Your task to perform on an android device: turn off javascript in the chrome app Image 0: 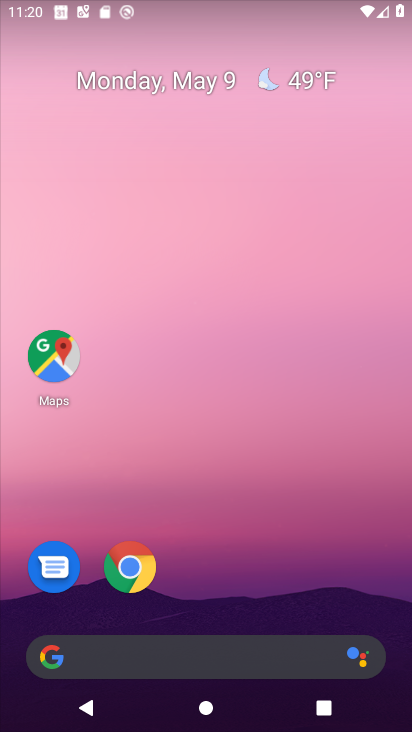
Step 0: click (136, 571)
Your task to perform on an android device: turn off javascript in the chrome app Image 1: 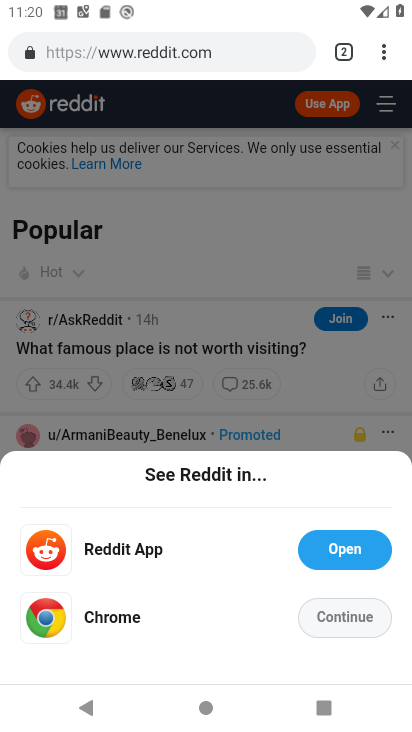
Step 1: click (383, 55)
Your task to perform on an android device: turn off javascript in the chrome app Image 2: 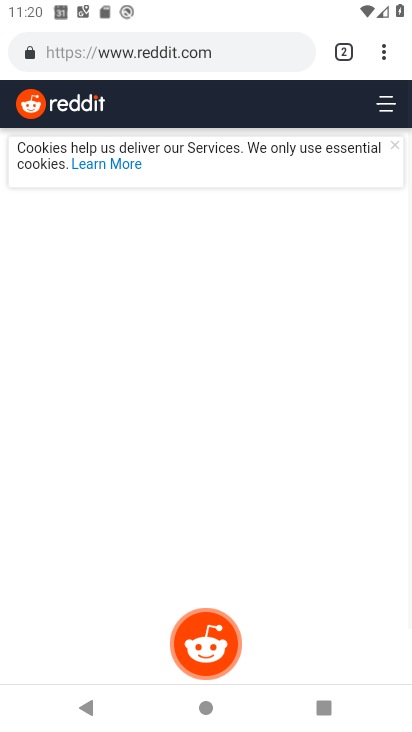
Step 2: click (383, 55)
Your task to perform on an android device: turn off javascript in the chrome app Image 3: 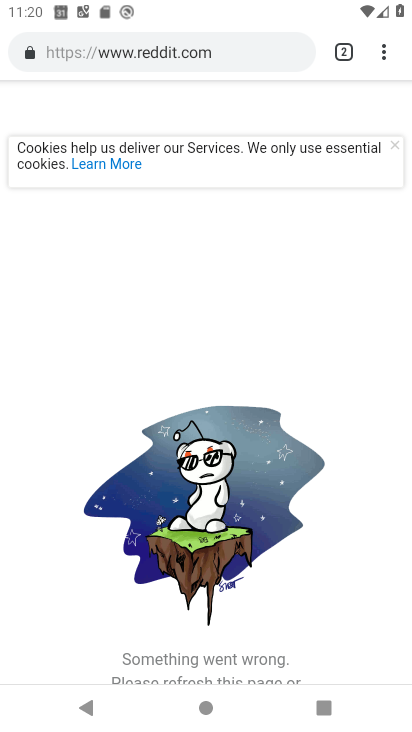
Step 3: click (385, 48)
Your task to perform on an android device: turn off javascript in the chrome app Image 4: 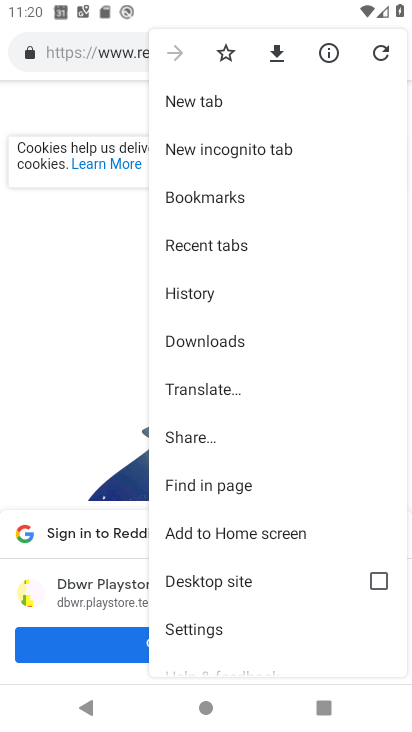
Step 4: click (189, 627)
Your task to perform on an android device: turn off javascript in the chrome app Image 5: 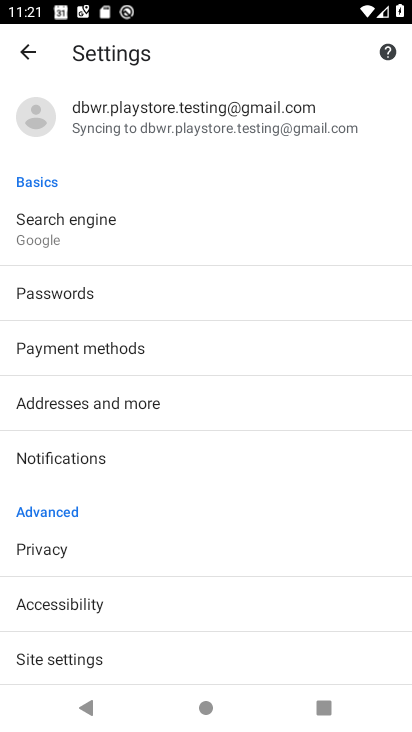
Step 5: click (51, 662)
Your task to perform on an android device: turn off javascript in the chrome app Image 6: 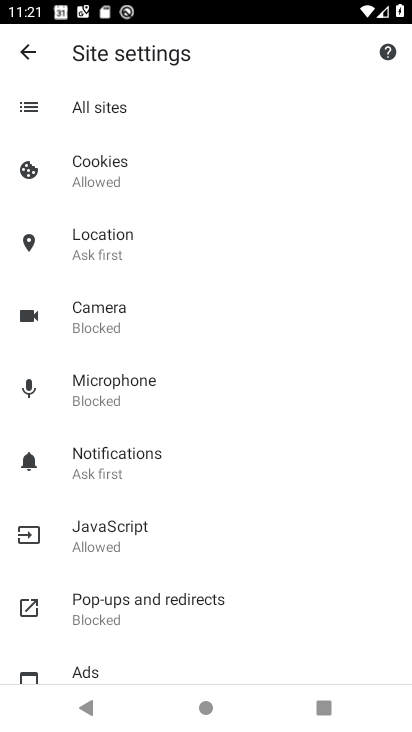
Step 6: click (104, 541)
Your task to perform on an android device: turn off javascript in the chrome app Image 7: 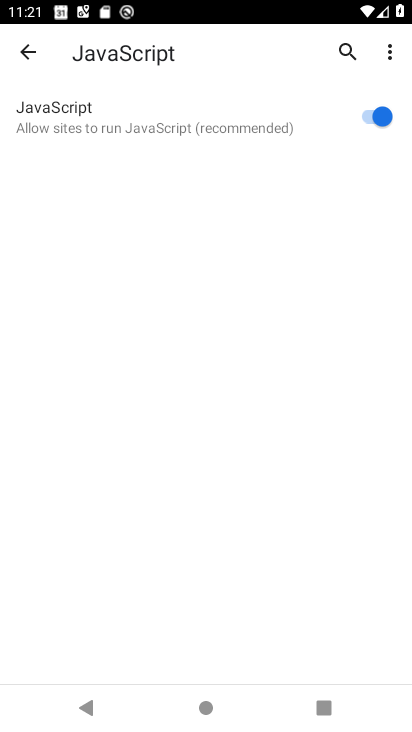
Step 7: click (367, 114)
Your task to perform on an android device: turn off javascript in the chrome app Image 8: 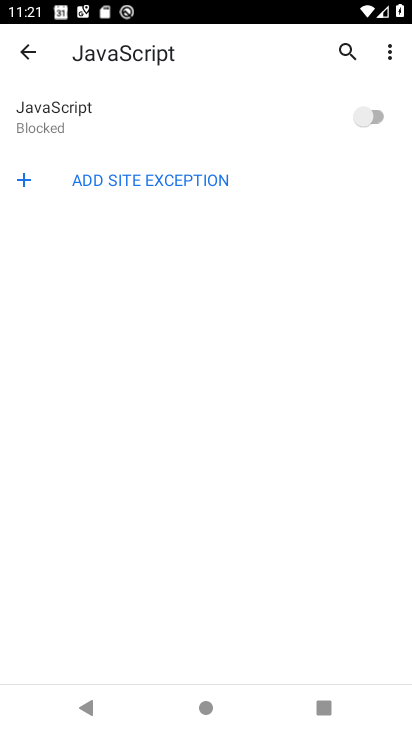
Step 8: task complete